Your task to perform on an android device: make emails show in primary in the gmail app Image 0: 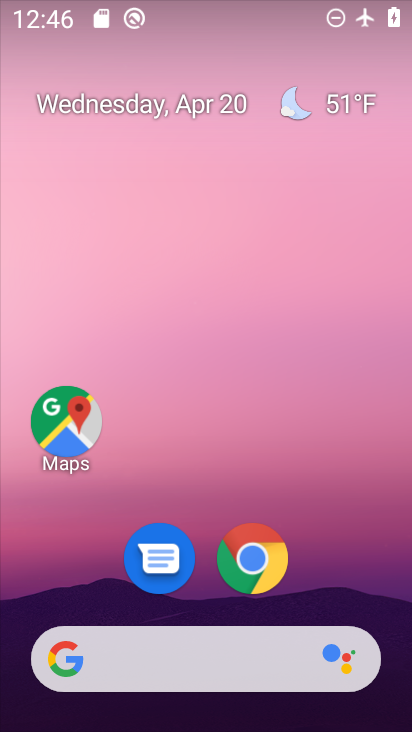
Step 0: drag from (381, 605) to (315, 172)
Your task to perform on an android device: make emails show in primary in the gmail app Image 1: 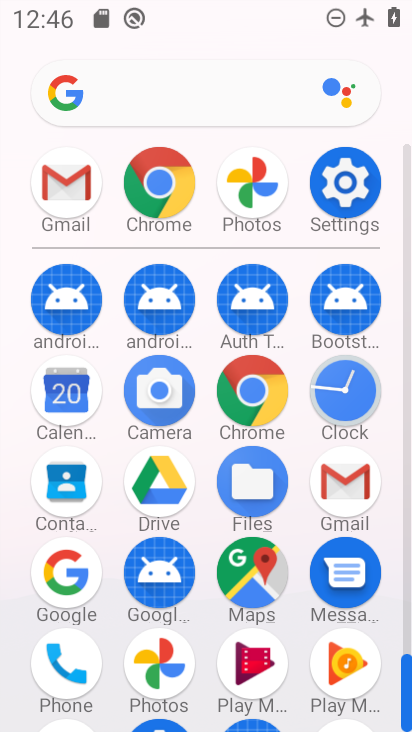
Step 1: click (341, 483)
Your task to perform on an android device: make emails show in primary in the gmail app Image 2: 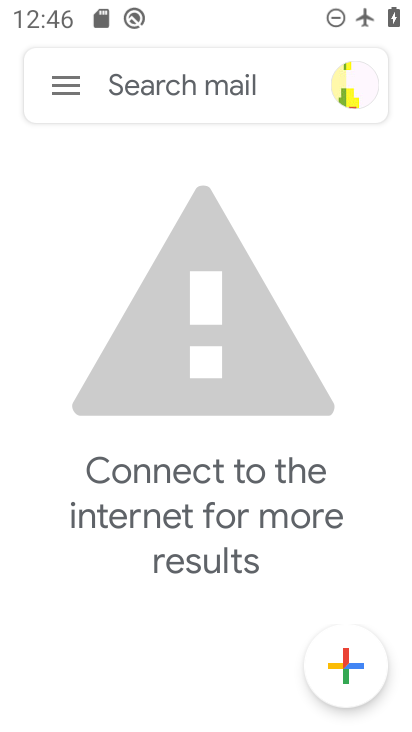
Step 2: click (64, 87)
Your task to perform on an android device: make emails show in primary in the gmail app Image 3: 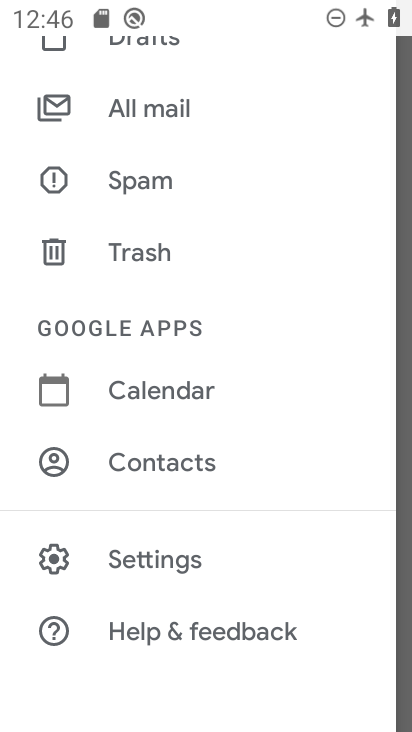
Step 3: click (161, 560)
Your task to perform on an android device: make emails show in primary in the gmail app Image 4: 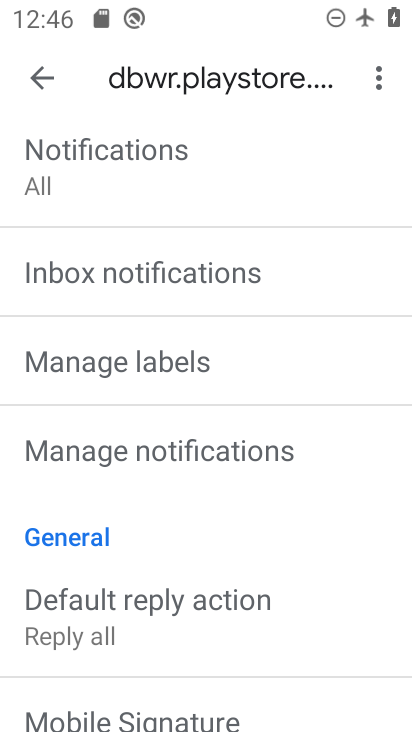
Step 4: drag from (306, 221) to (314, 458)
Your task to perform on an android device: make emails show in primary in the gmail app Image 5: 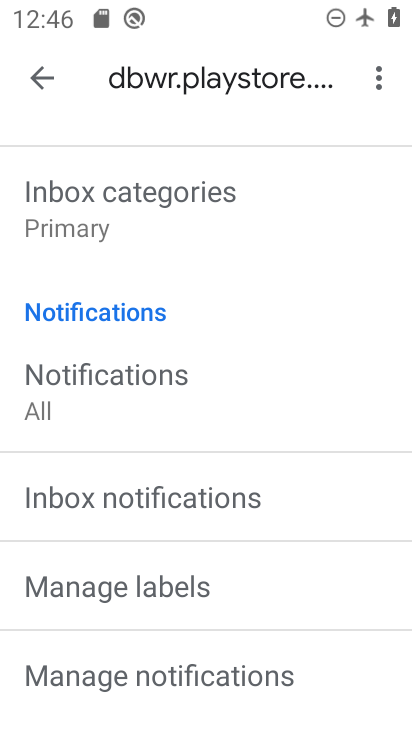
Step 5: click (65, 220)
Your task to perform on an android device: make emails show in primary in the gmail app Image 6: 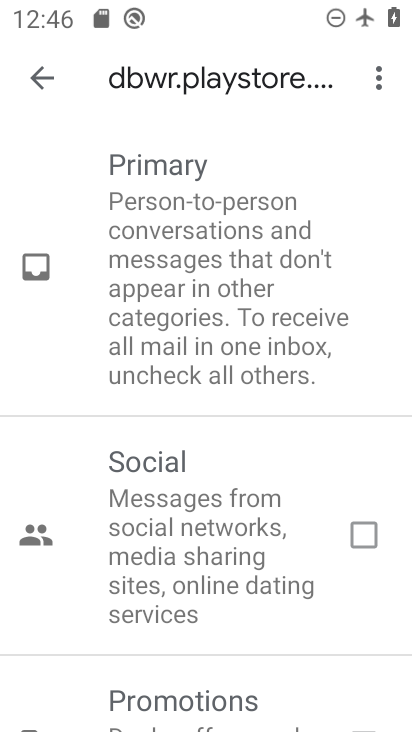
Step 6: task complete